Your task to perform on an android device: turn on translation in the chrome app Image 0: 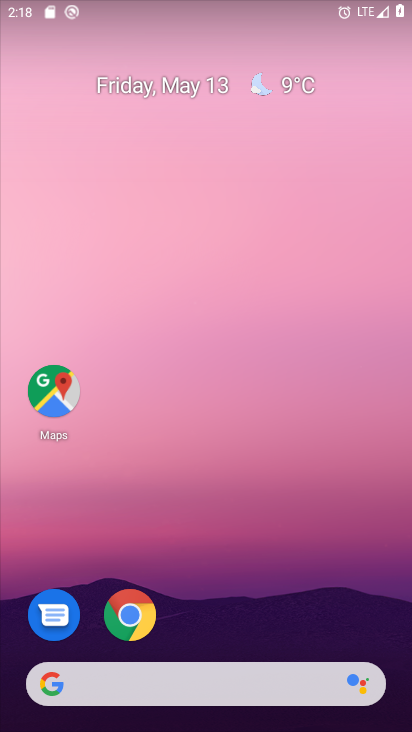
Step 0: click (138, 598)
Your task to perform on an android device: turn on translation in the chrome app Image 1: 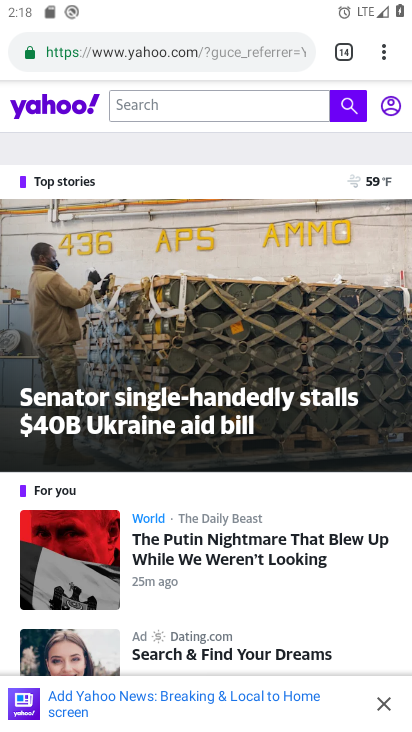
Step 1: click (381, 56)
Your task to perform on an android device: turn on translation in the chrome app Image 2: 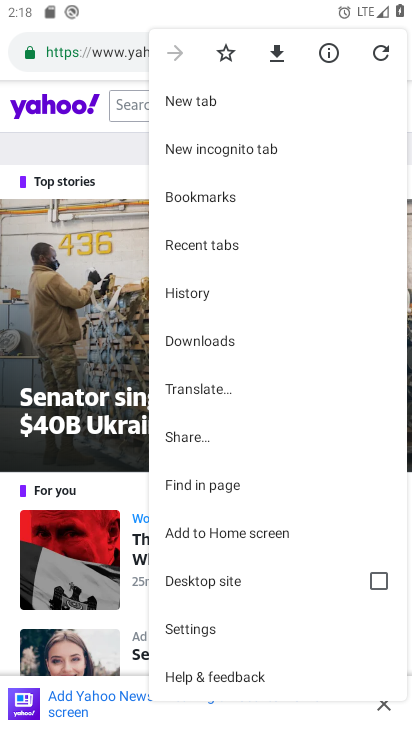
Step 2: click (198, 617)
Your task to perform on an android device: turn on translation in the chrome app Image 3: 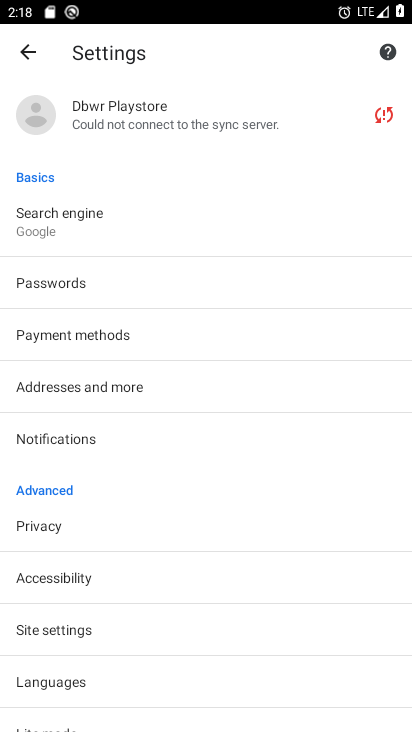
Step 3: click (191, 680)
Your task to perform on an android device: turn on translation in the chrome app Image 4: 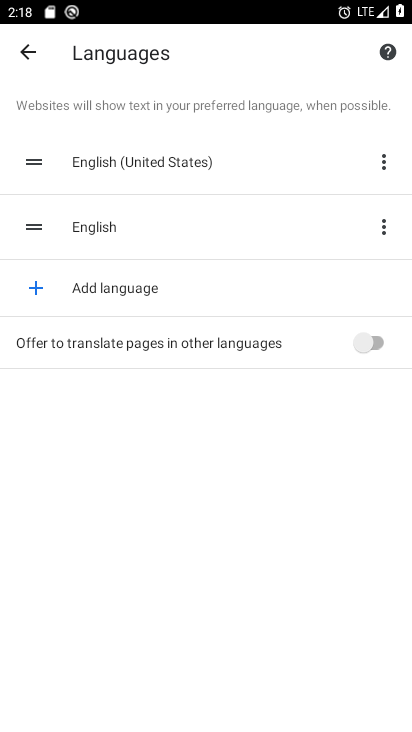
Step 4: click (376, 340)
Your task to perform on an android device: turn on translation in the chrome app Image 5: 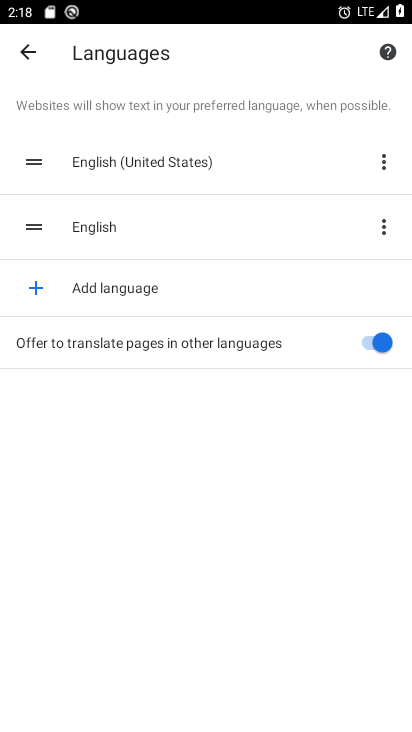
Step 5: task complete